Your task to perform on an android device: turn on location history Image 0: 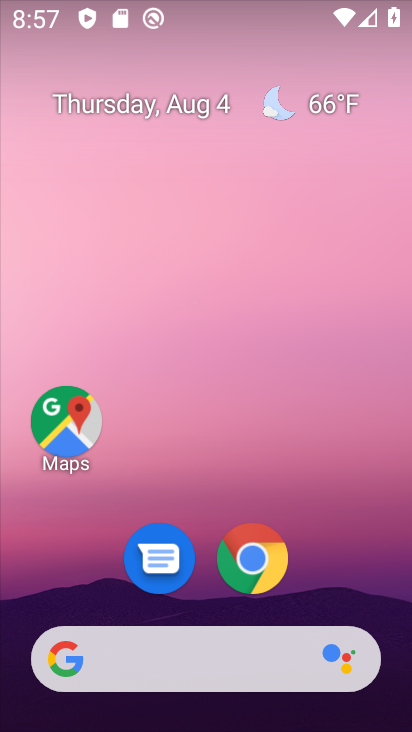
Step 0: drag from (296, 554) to (286, 55)
Your task to perform on an android device: turn on location history Image 1: 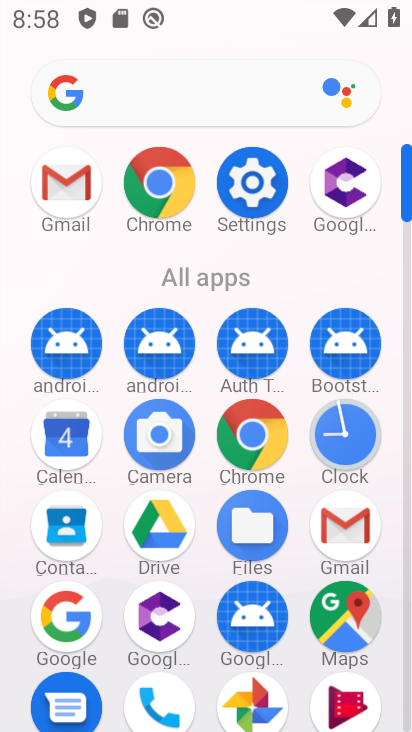
Step 1: click (249, 172)
Your task to perform on an android device: turn on location history Image 2: 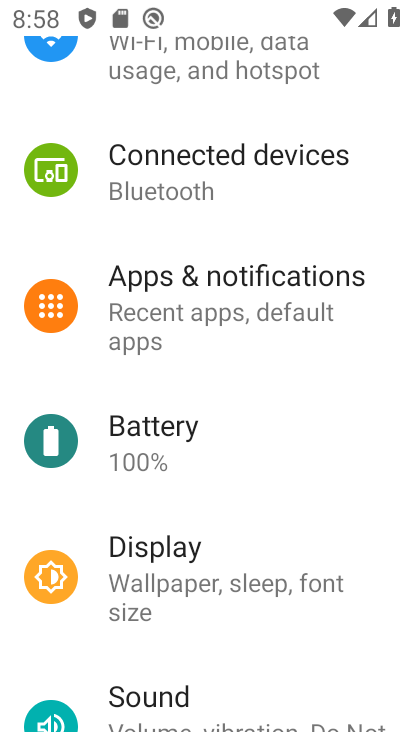
Step 2: drag from (248, 656) to (301, 333)
Your task to perform on an android device: turn on location history Image 3: 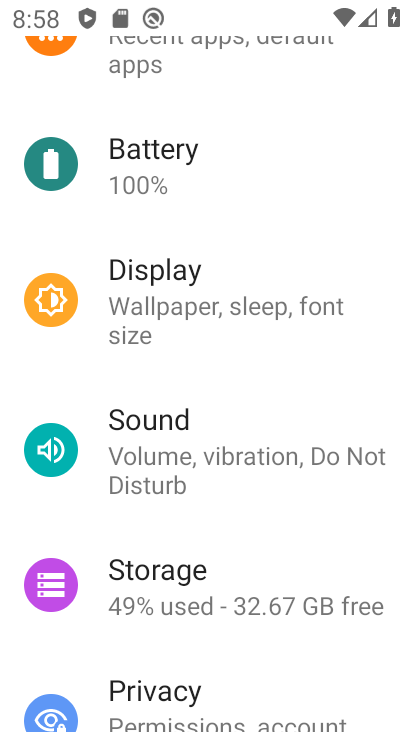
Step 3: drag from (232, 694) to (317, 287)
Your task to perform on an android device: turn on location history Image 4: 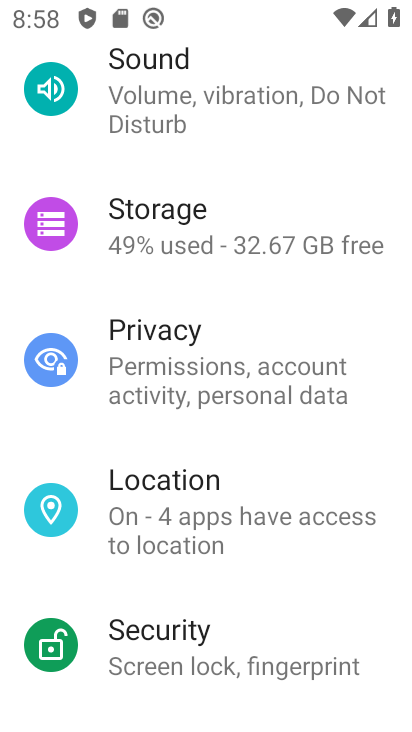
Step 4: click (148, 521)
Your task to perform on an android device: turn on location history Image 5: 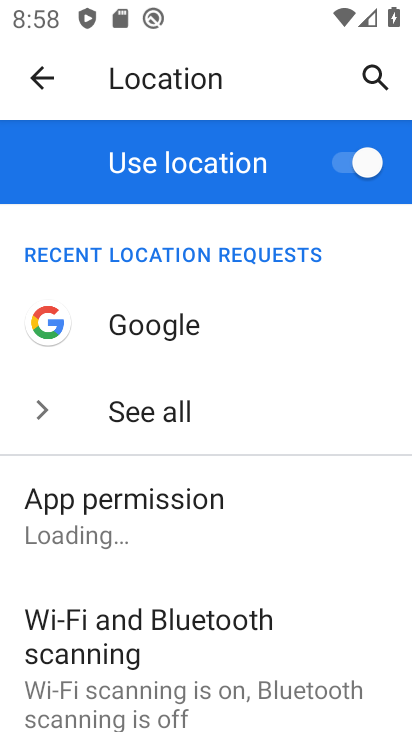
Step 5: drag from (362, 588) to (380, 293)
Your task to perform on an android device: turn on location history Image 6: 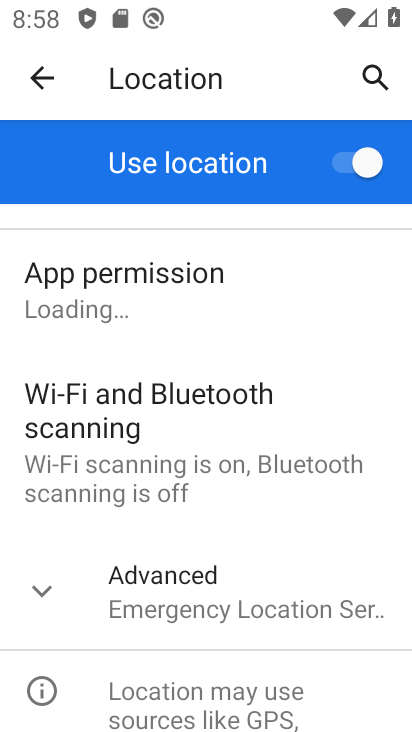
Step 6: click (164, 582)
Your task to perform on an android device: turn on location history Image 7: 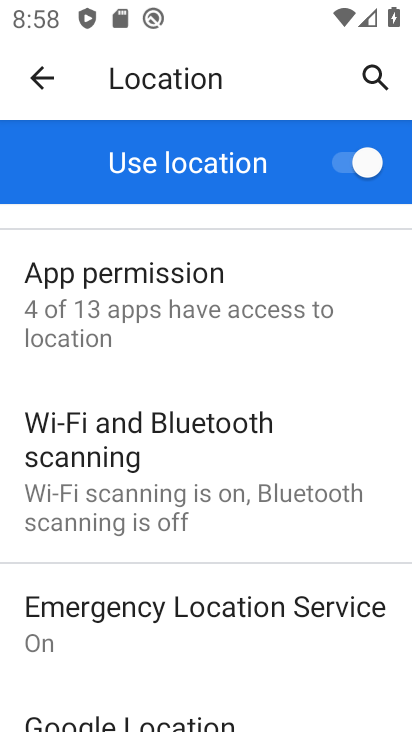
Step 7: drag from (293, 704) to (345, 310)
Your task to perform on an android device: turn on location history Image 8: 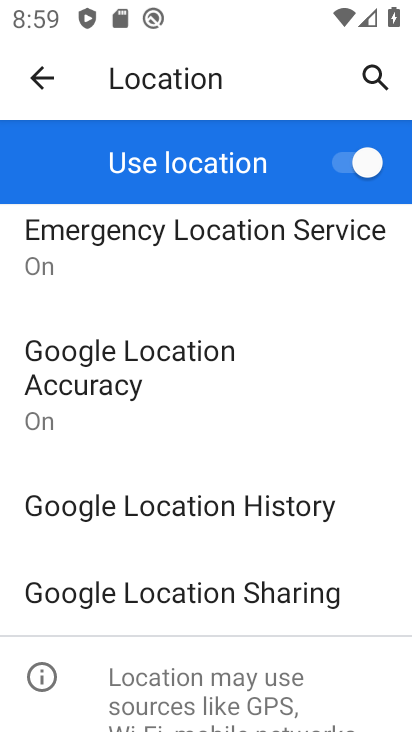
Step 8: click (306, 505)
Your task to perform on an android device: turn on location history Image 9: 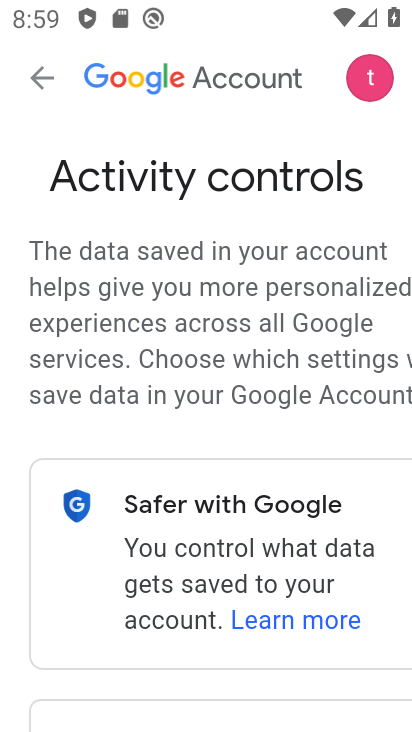
Step 9: task complete